Your task to perform on an android device: Open location settings Image 0: 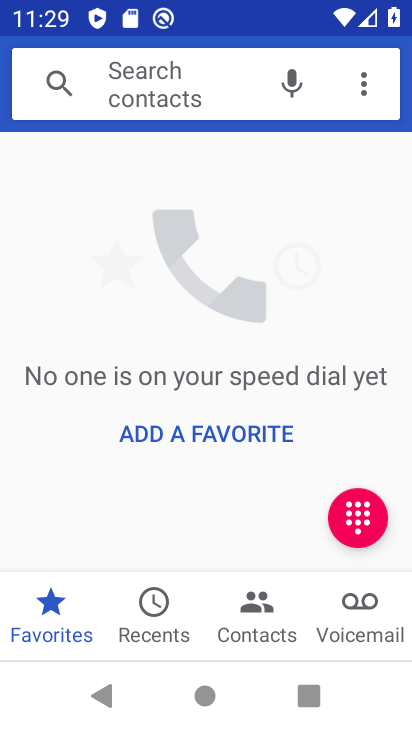
Step 0: press home button
Your task to perform on an android device: Open location settings Image 1: 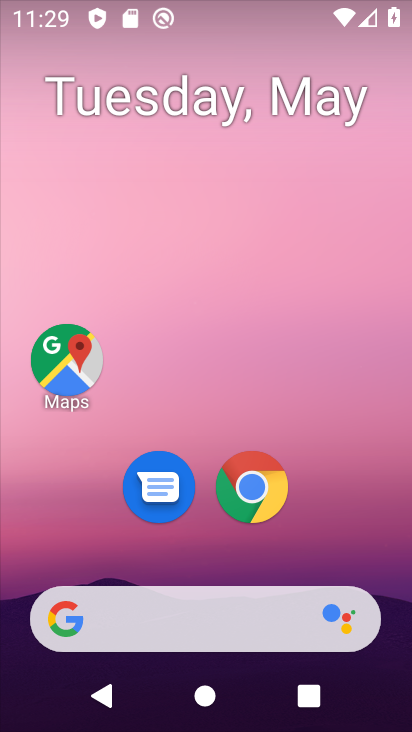
Step 1: drag from (297, 554) to (248, 167)
Your task to perform on an android device: Open location settings Image 2: 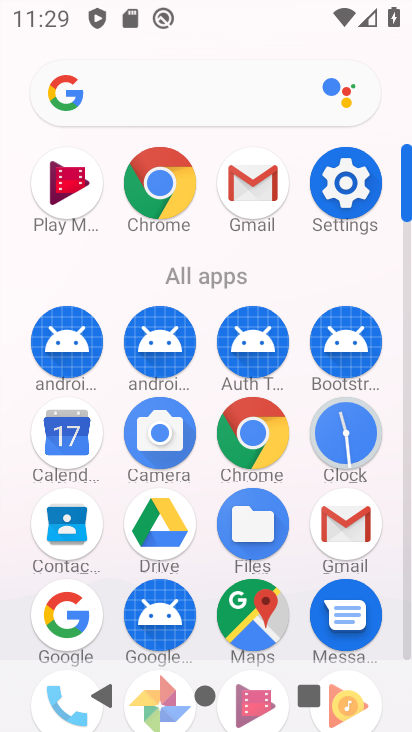
Step 2: click (343, 161)
Your task to perform on an android device: Open location settings Image 3: 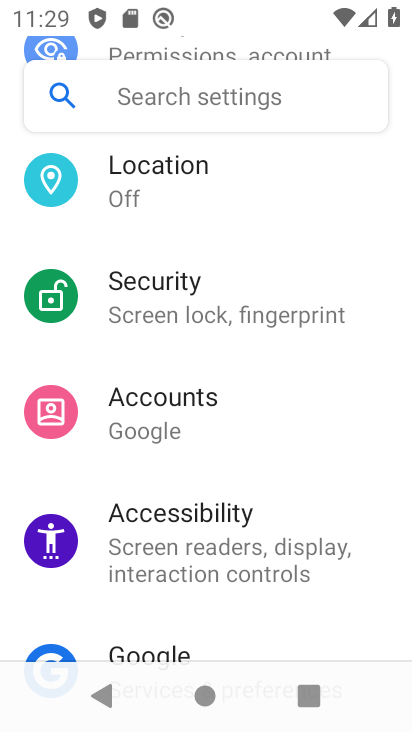
Step 3: click (162, 177)
Your task to perform on an android device: Open location settings Image 4: 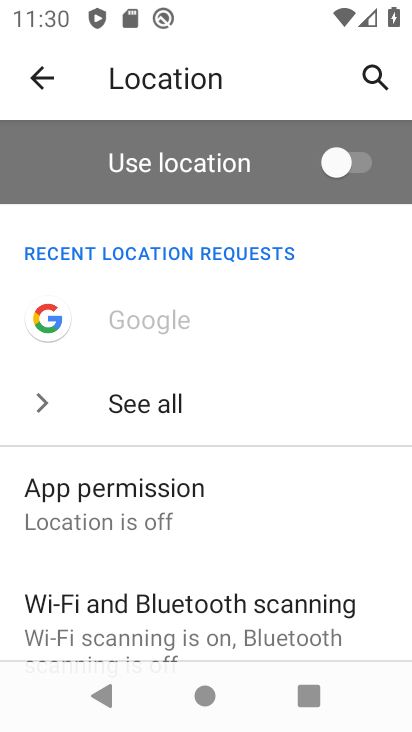
Step 4: task complete